Your task to perform on an android device: check google app version Image 0: 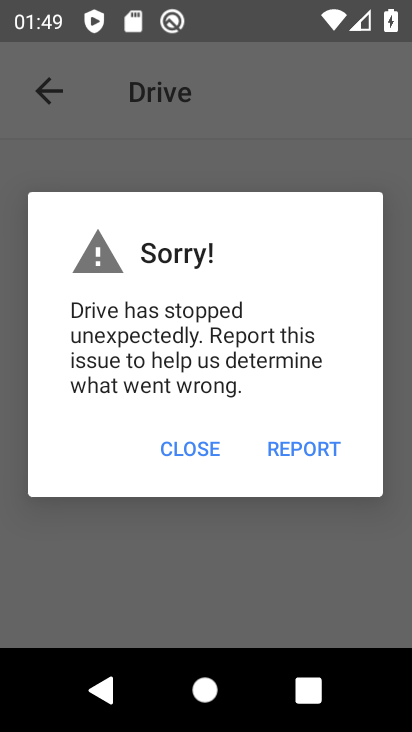
Step 0: press home button
Your task to perform on an android device: check google app version Image 1: 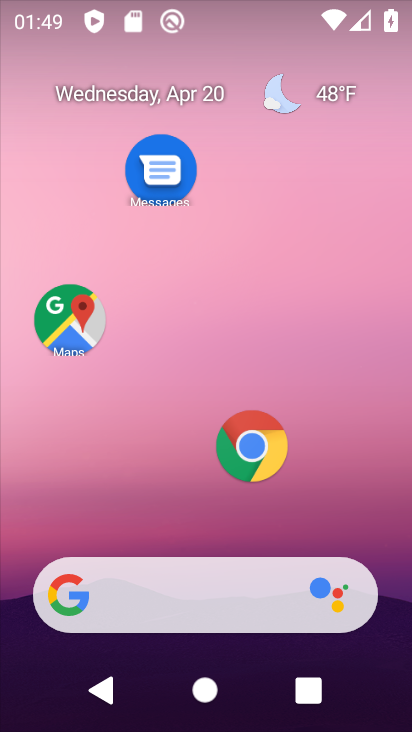
Step 1: drag from (210, 530) to (216, 48)
Your task to perform on an android device: check google app version Image 2: 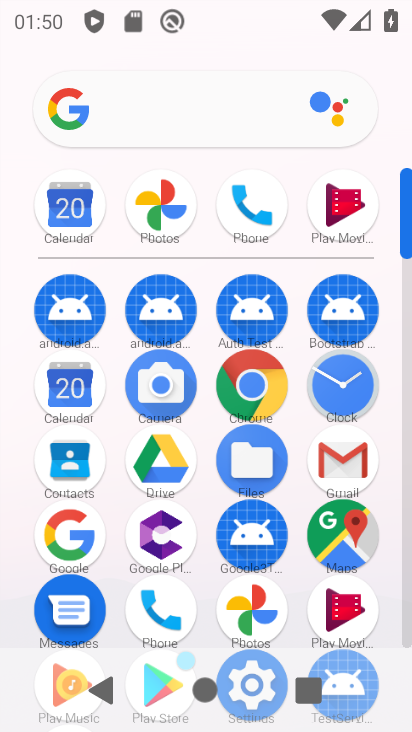
Step 2: click (69, 526)
Your task to perform on an android device: check google app version Image 3: 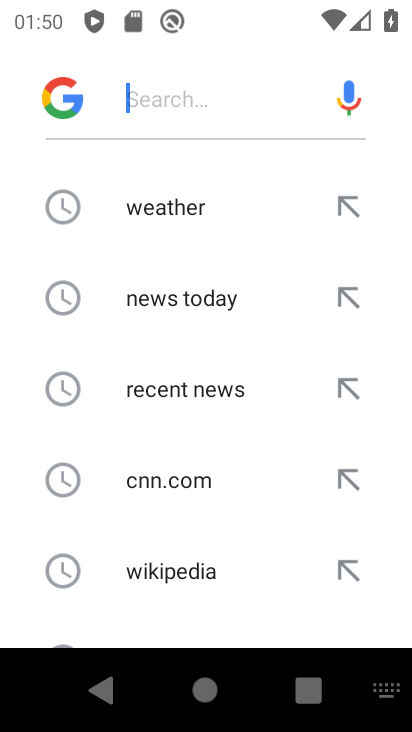
Step 3: press home button
Your task to perform on an android device: check google app version Image 4: 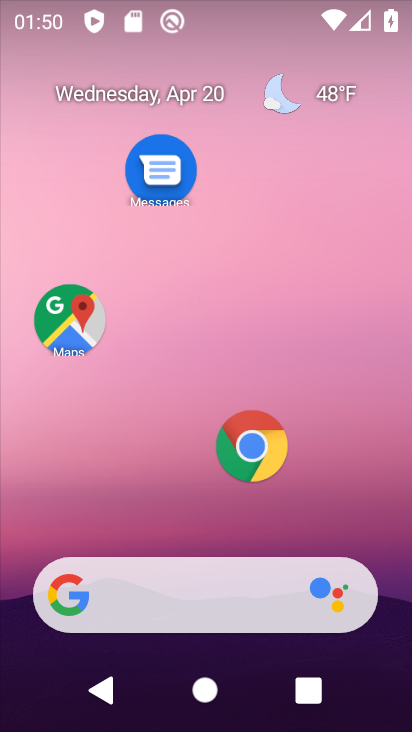
Step 4: drag from (196, 509) to (180, 16)
Your task to perform on an android device: check google app version Image 5: 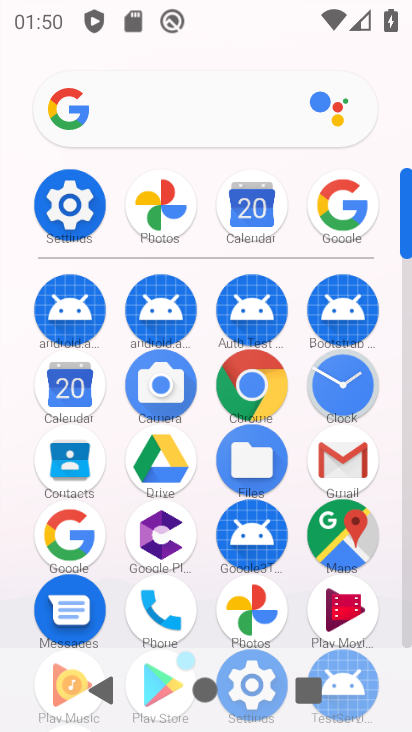
Step 5: click (71, 534)
Your task to perform on an android device: check google app version Image 6: 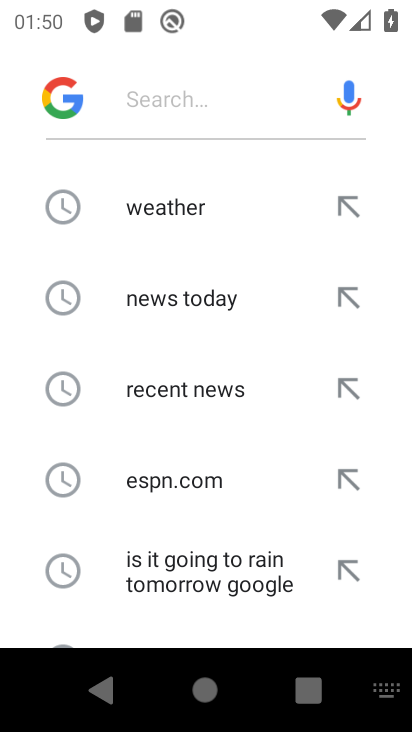
Step 6: press back button
Your task to perform on an android device: check google app version Image 7: 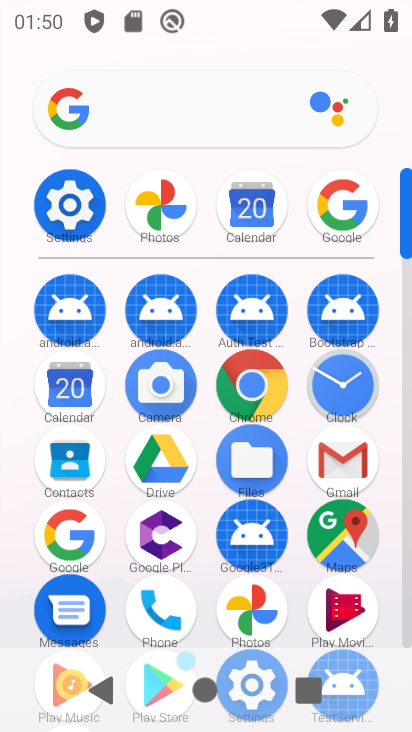
Step 7: click (55, 526)
Your task to perform on an android device: check google app version Image 8: 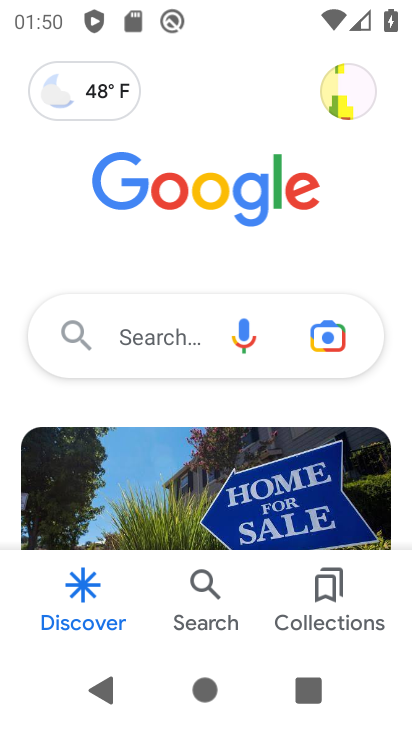
Step 8: drag from (359, 592) to (58, 592)
Your task to perform on an android device: check google app version Image 9: 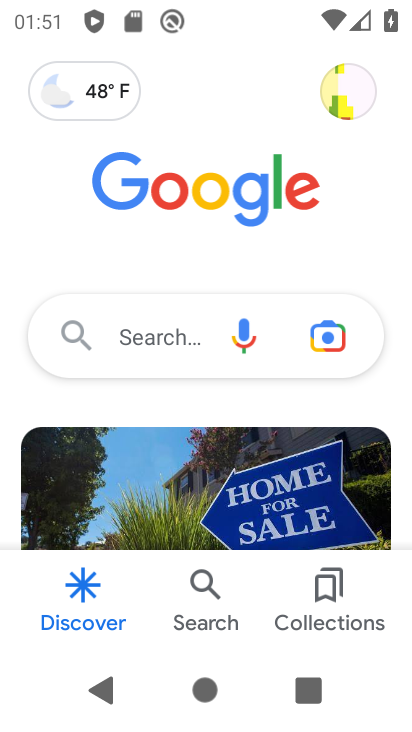
Step 9: drag from (333, 604) to (87, 602)
Your task to perform on an android device: check google app version Image 10: 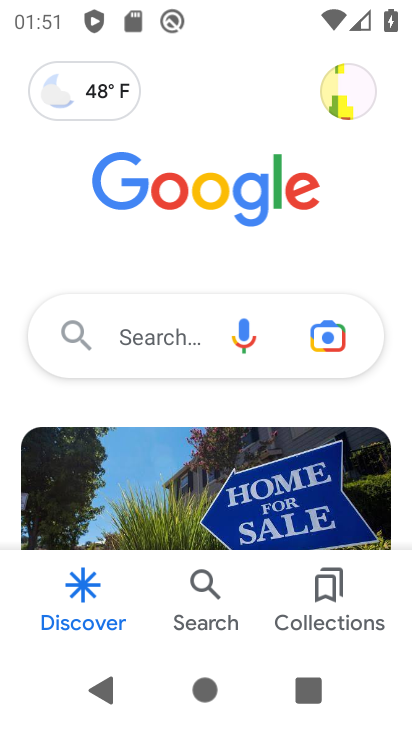
Step 10: click (329, 598)
Your task to perform on an android device: check google app version Image 11: 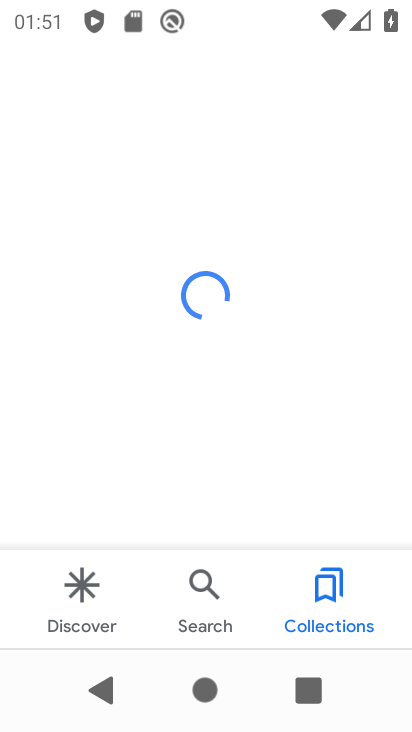
Step 11: drag from (344, 598) to (1, 595)
Your task to perform on an android device: check google app version Image 12: 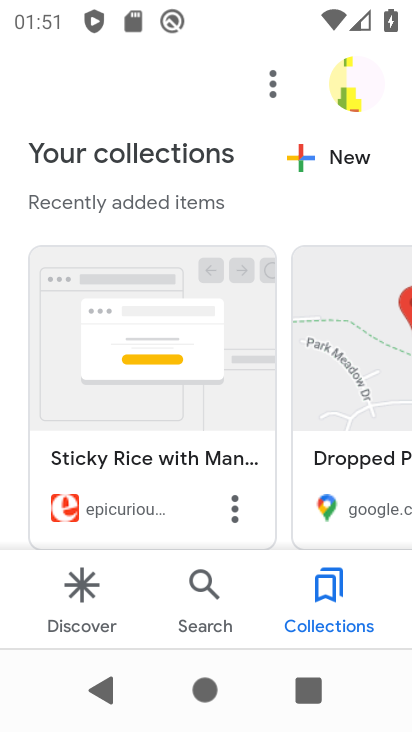
Step 12: drag from (350, 594) to (23, 589)
Your task to perform on an android device: check google app version Image 13: 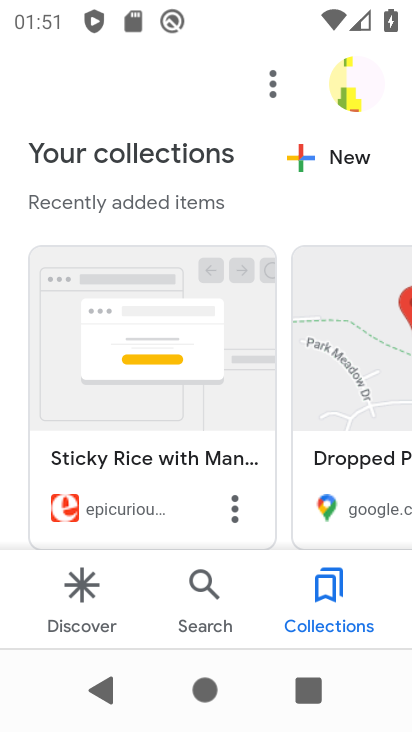
Step 13: click (350, 82)
Your task to perform on an android device: check google app version Image 14: 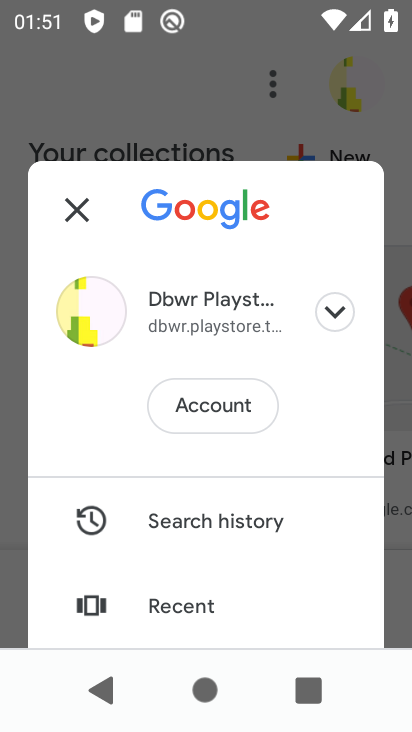
Step 14: drag from (202, 565) to (200, 343)
Your task to perform on an android device: check google app version Image 15: 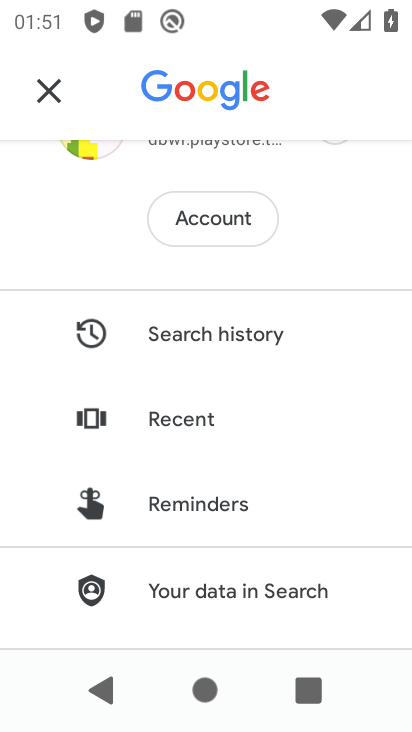
Step 15: drag from (201, 587) to (196, 302)
Your task to perform on an android device: check google app version Image 16: 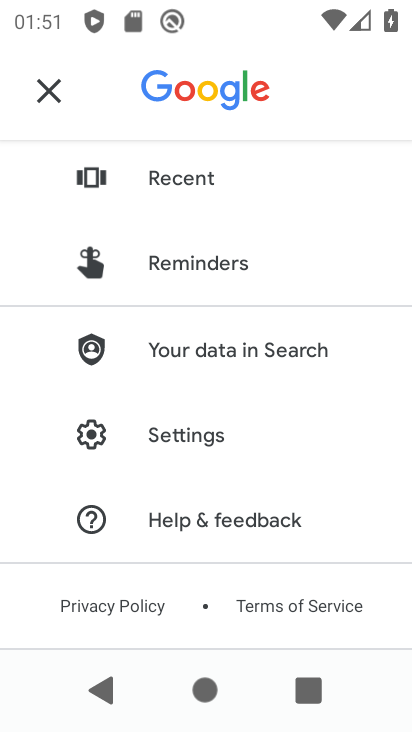
Step 16: click (129, 428)
Your task to perform on an android device: check google app version Image 17: 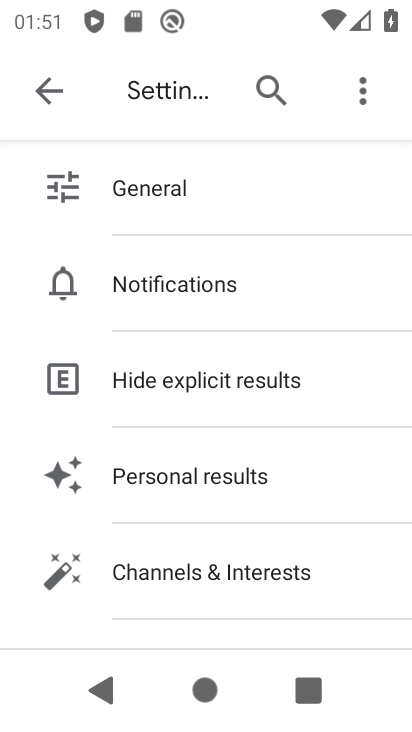
Step 17: drag from (174, 540) to (176, 177)
Your task to perform on an android device: check google app version Image 18: 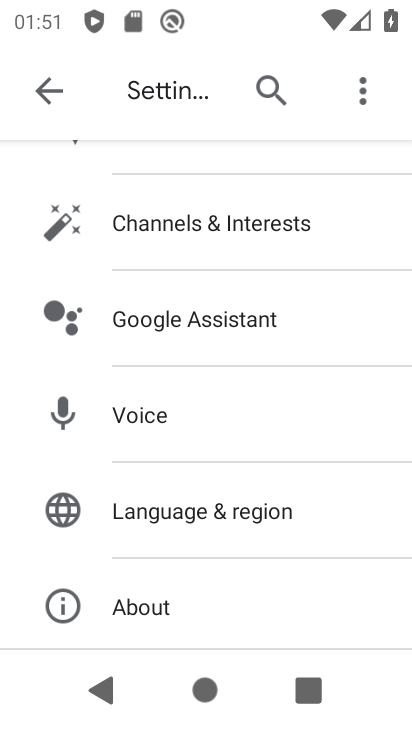
Step 18: click (157, 595)
Your task to perform on an android device: check google app version Image 19: 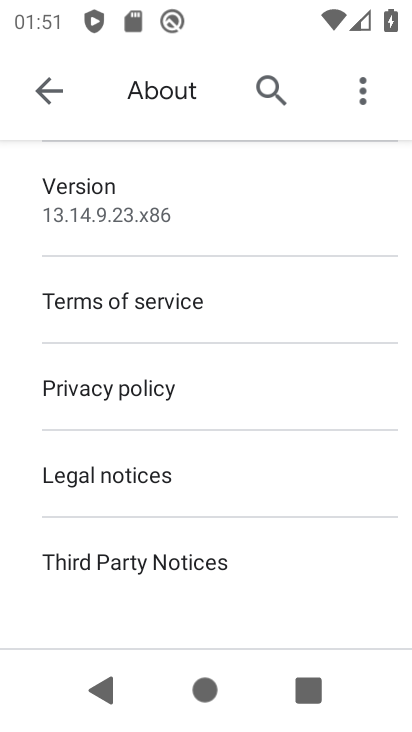
Step 19: task complete